Your task to perform on an android device: open app "Skype" (install if not already installed) Image 0: 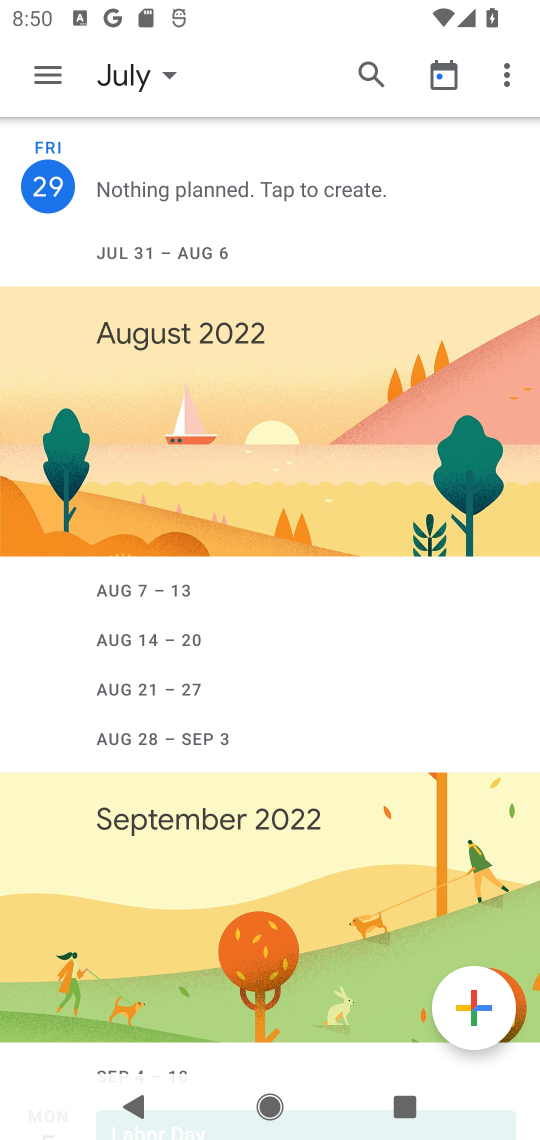
Step 0: press home button
Your task to perform on an android device: open app "Skype" (install if not already installed) Image 1: 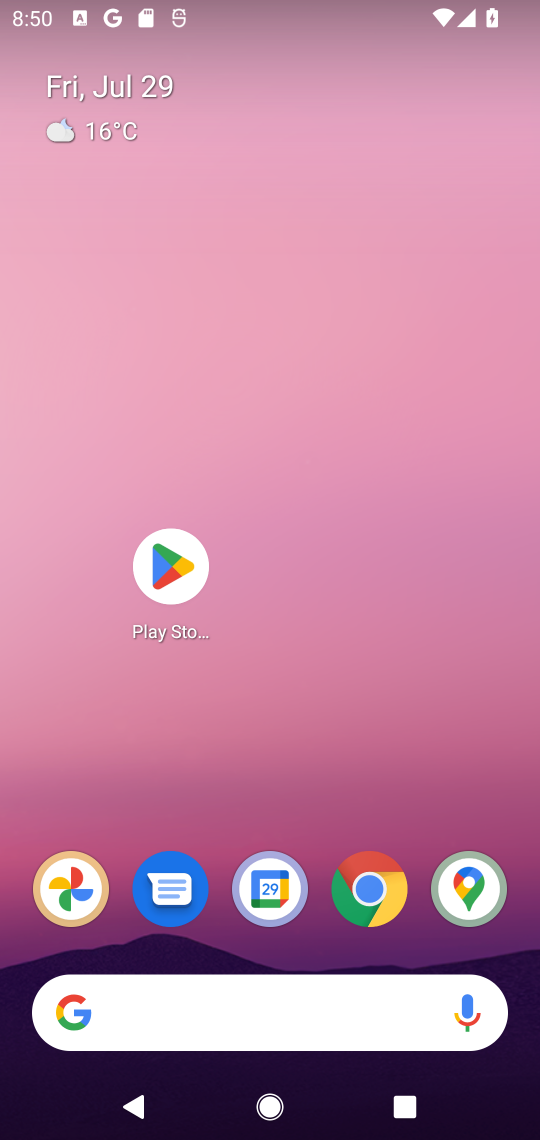
Step 1: click (173, 551)
Your task to perform on an android device: open app "Skype" (install if not already installed) Image 2: 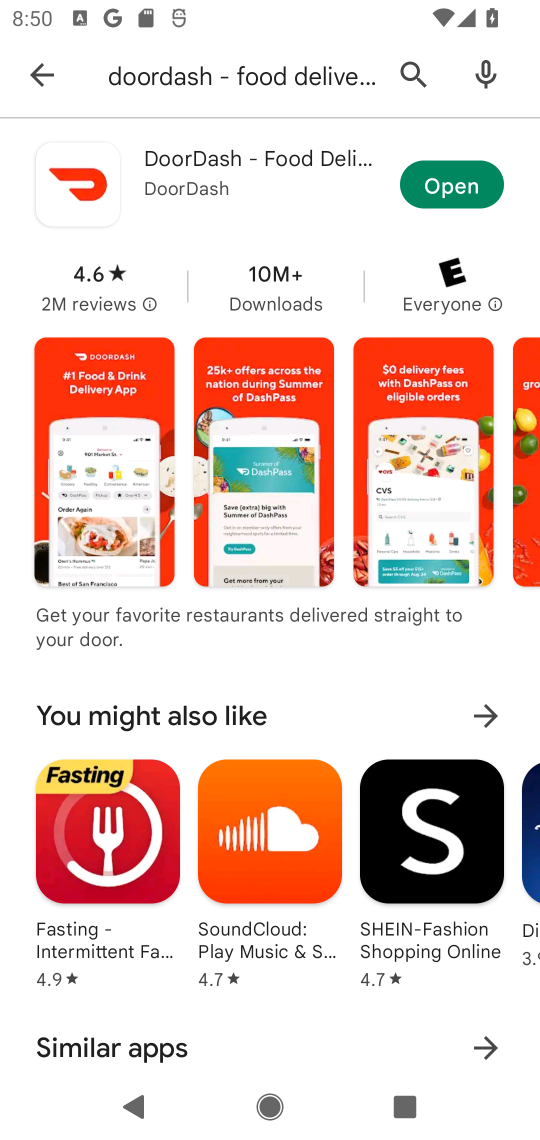
Step 2: click (419, 82)
Your task to perform on an android device: open app "Skype" (install if not already installed) Image 3: 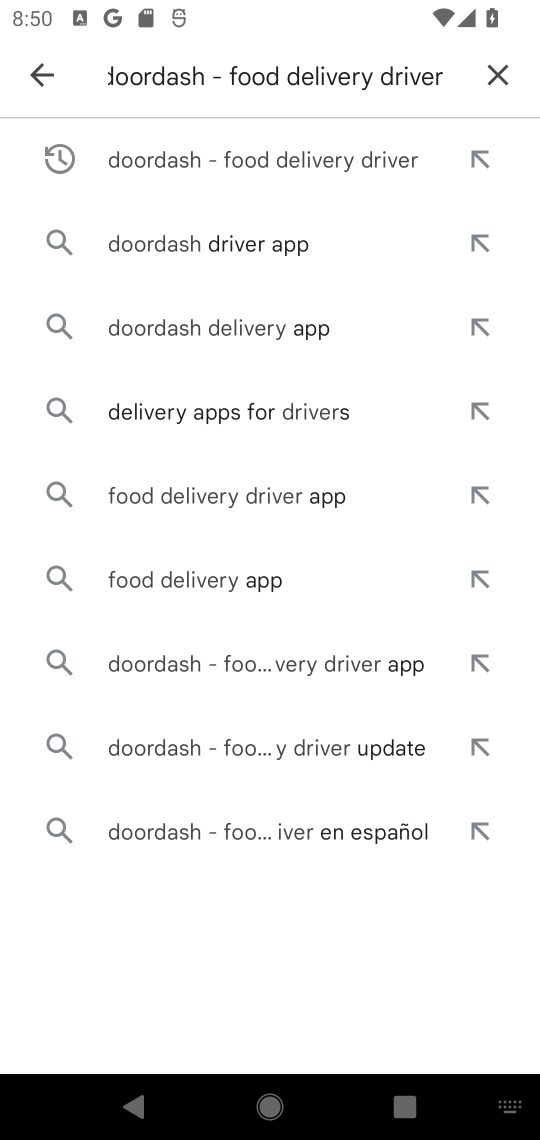
Step 3: click (488, 66)
Your task to perform on an android device: open app "Skype" (install if not already installed) Image 4: 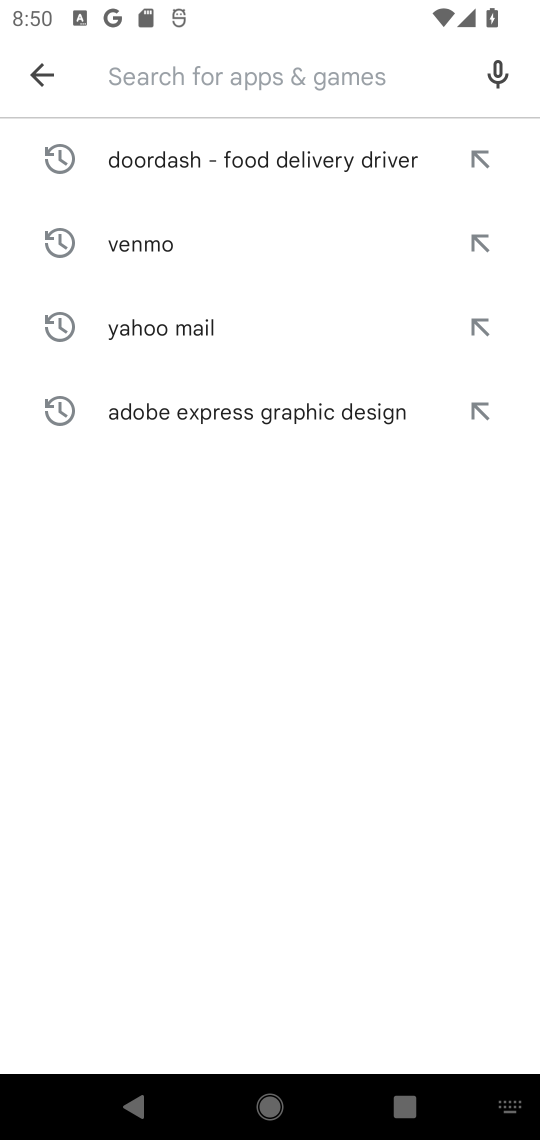
Step 4: type "Skype"
Your task to perform on an android device: open app "Skype" (install if not already installed) Image 5: 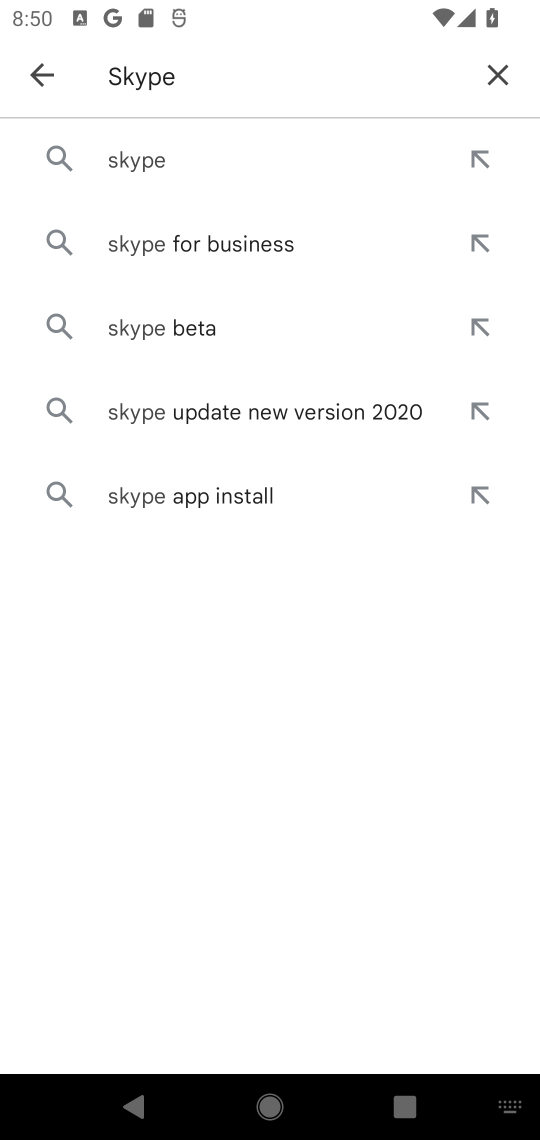
Step 5: click (162, 157)
Your task to perform on an android device: open app "Skype" (install if not already installed) Image 6: 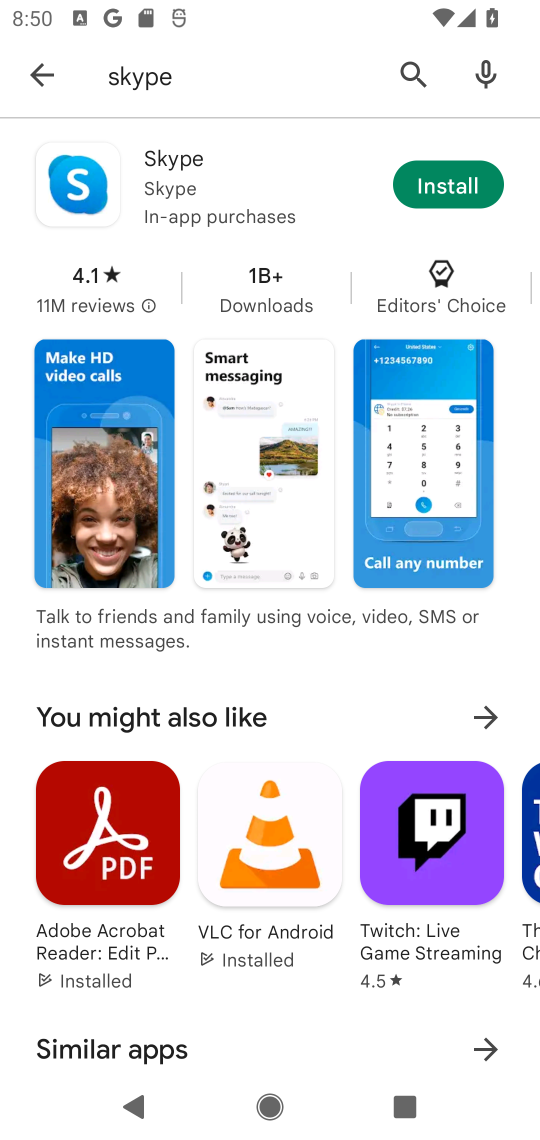
Step 6: click (448, 182)
Your task to perform on an android device: open app "Skype" (install if not already installed) Image 7: 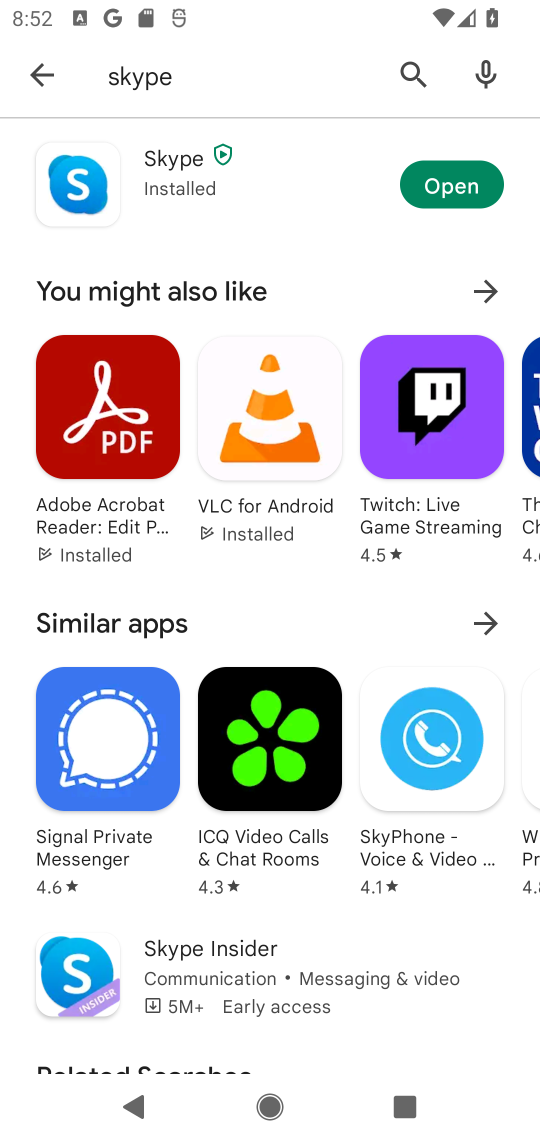
Step 7: click (450, 168)
Your task to perform on an android device: open app "Skype" (install if not already installed) Image 8: 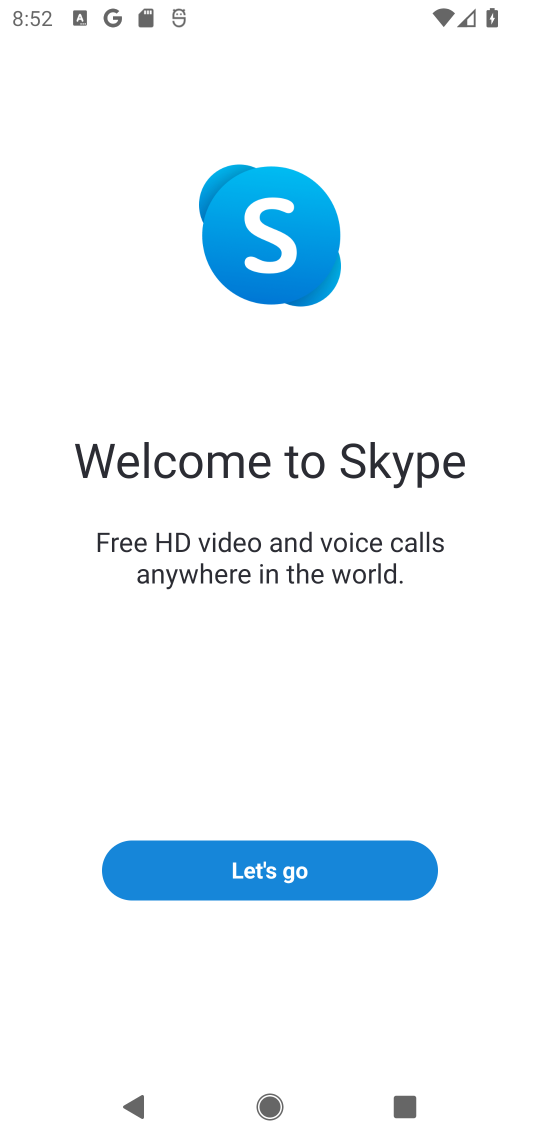
Step 8: task complete